Your task to perform on an android device: delete a single message in the gmail app Image 0: 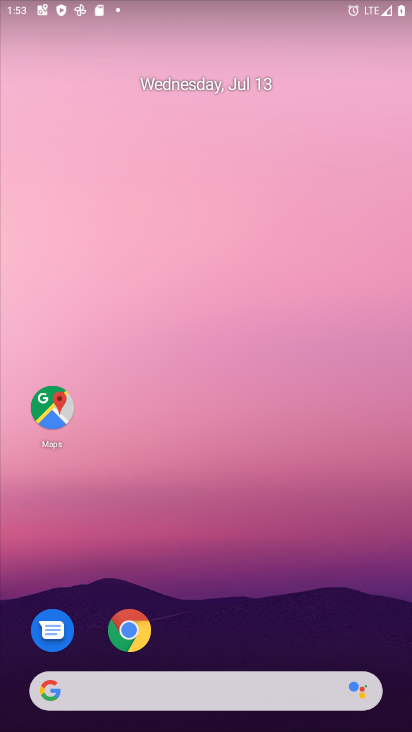
Step 0: drag from (385, 678) to (274, 51)
Your task to perform on an android device: delete a single message in the gmail app Image 1: 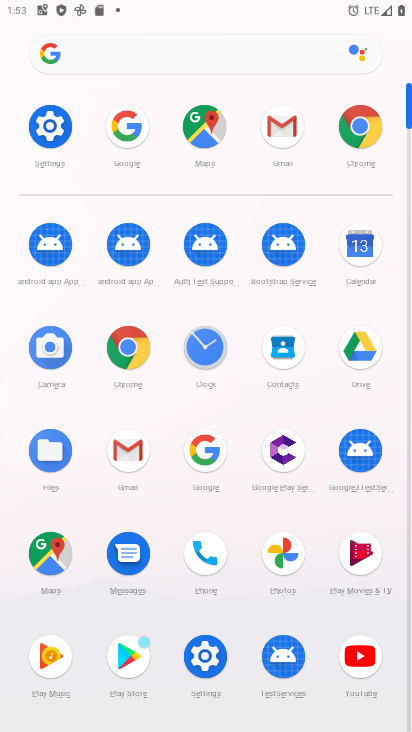
Step 1: click (115, 458)
Your task to perform on an android device: delete a single message in the gmail app Image 2: 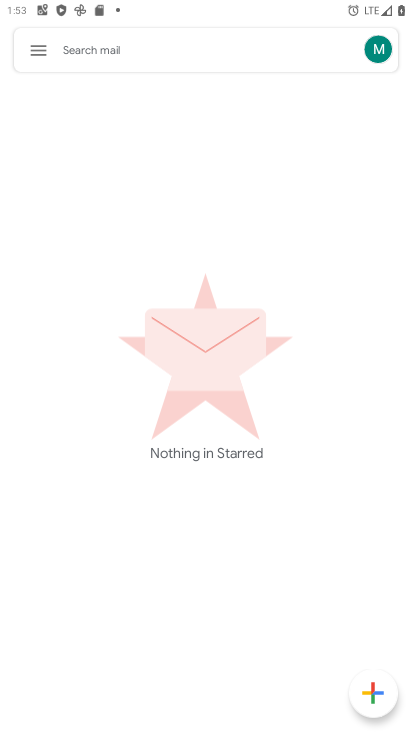
Step 2: click (29, 46)
Your task to perform on an android device: delete a single message in the gmail app Image 3: 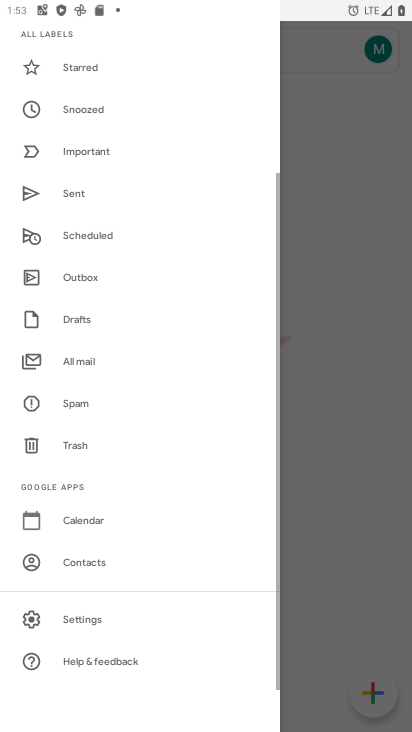
Step 3: drag from (77, 78) to (152, 663)
Your task to perform on an android device: delete a single message in the gmail app Image 4: 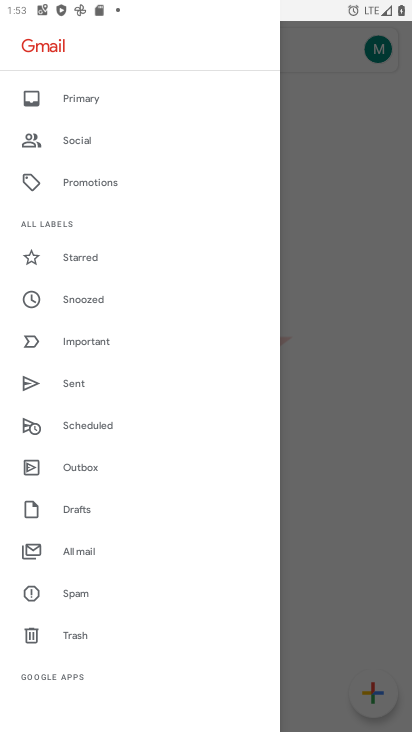
Step 4: click (108, 106)
Your task to perform on an android device: delete a single message in the gmail app Image 5: 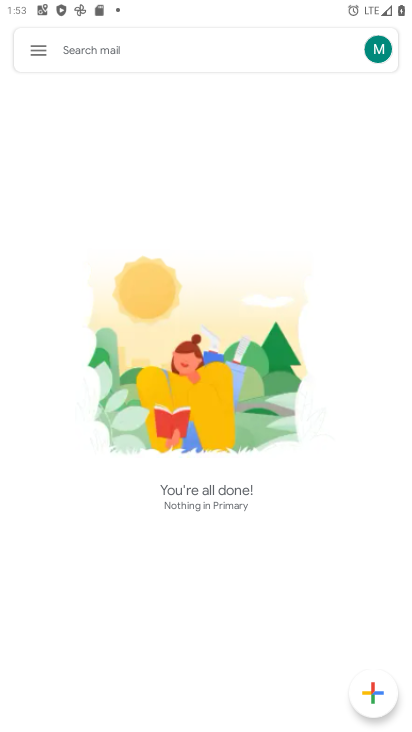
Step 5: task complete